Your task to perform on an android device: install app "Google Chat" Image 0: 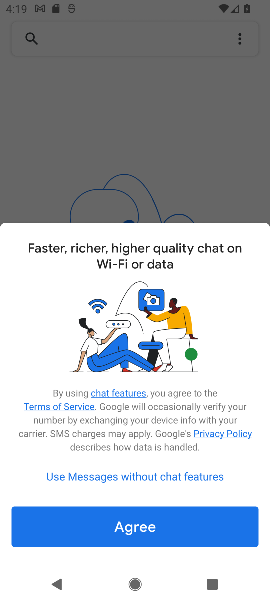
Step 0: press home button
Your task to perform on an android device: install app "Google Chat" Image 1: 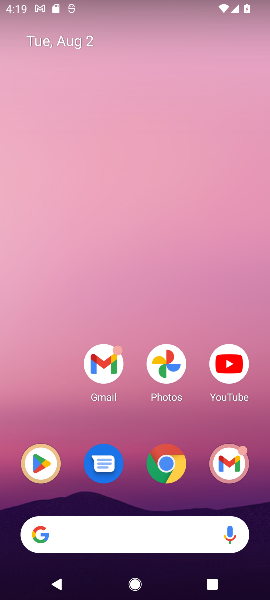
Step 1: click (43, 460)
Your task to perform on an android device: install app "Google Chat" Image 2: 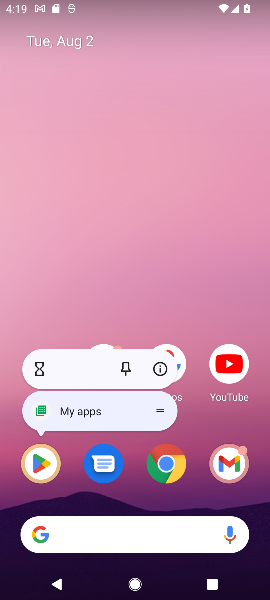
Step 2: click (36, 467)
Your task to perform on an android device: install app "Google Chat" Image 3: 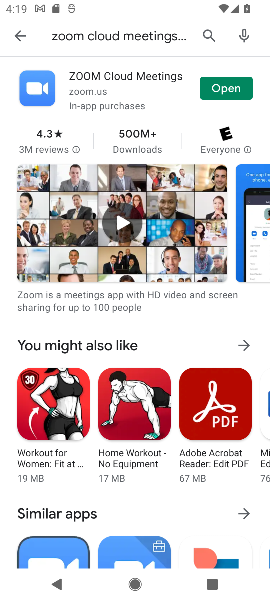
Step 3: click (206, 38)
Your task to perform on an android device: install app "Google Chat" Image 4: 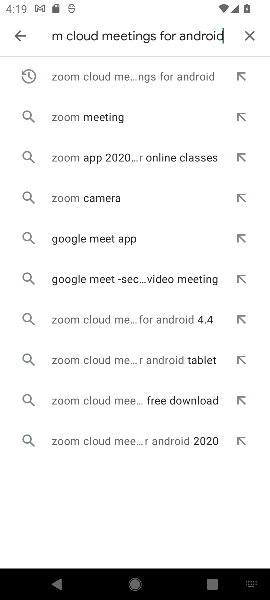
Step 4: click (244, 29)
Your task to perform on an android device: install app "Google Chat" Image 5: 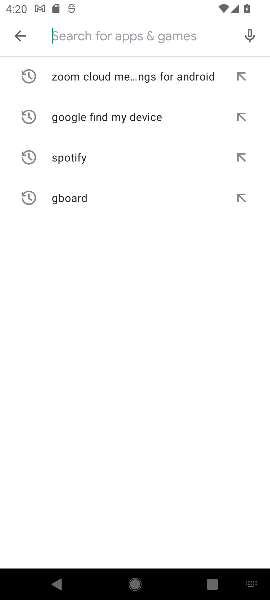
Step 5: type "Google Chat"
Your task to perform on an android device: install app "Google Chat" Image 6: 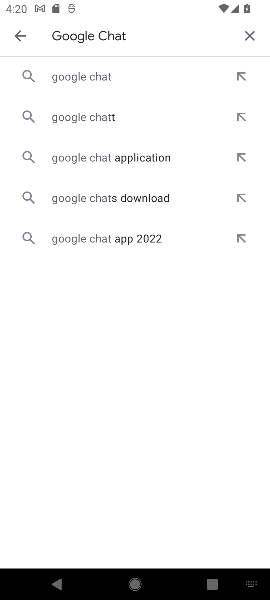
Step 6: click (99, 69)
Your task to perform on an android device: install app "Google Chat" Image 7: 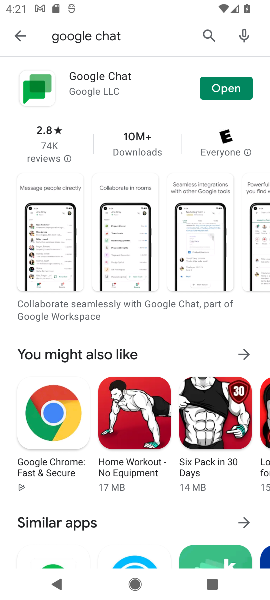
Step 7: task complete